Your task to perform on an android device: What's on my calendar tomorrow? Image 0: 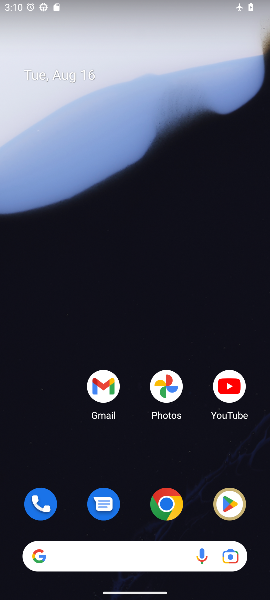
Step 0: drag from (141, 489) to (101, 124)
Your task to perform on an android device: What's on my calendar tomorrow? Image 1: 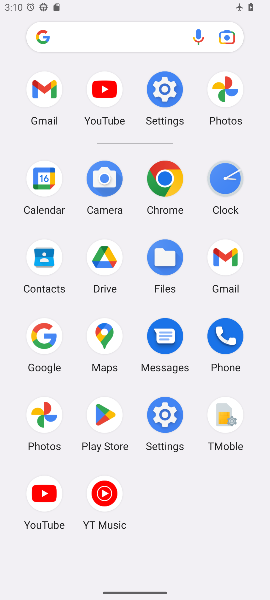
Step 1: click (41, 175)
Your task to perform on an android device: What's on my calendar tomorrow? Image 2: 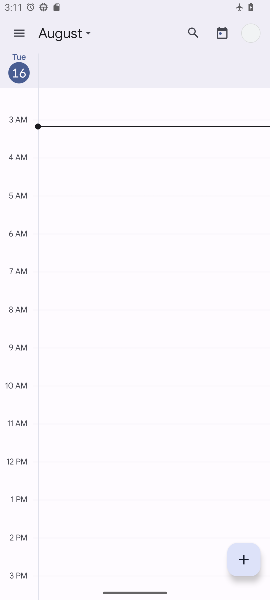
Step 2: click (19, 31)
Your task to perform on an android device: What's on my calendar tomorrow? Image 3: 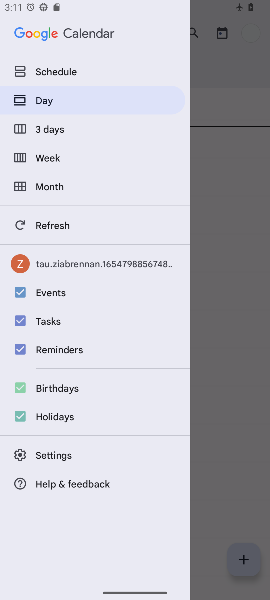
Step 3: click (69, 103)
Your task to perform on an android device: What's on my calendar tomorrow? Image 4: 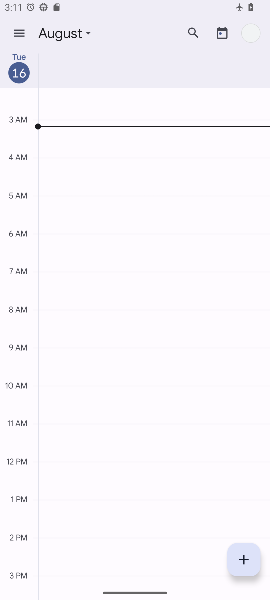
Step 4: click (86, 30)
Your task to perform on an android device: What's on my calendar tomorrow? Image 5: 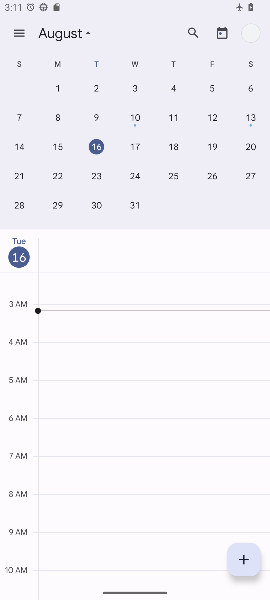
Step 5: click (132, 144)
Your task to perform on an android device: What's on my calendar tomorrow? Image 6: 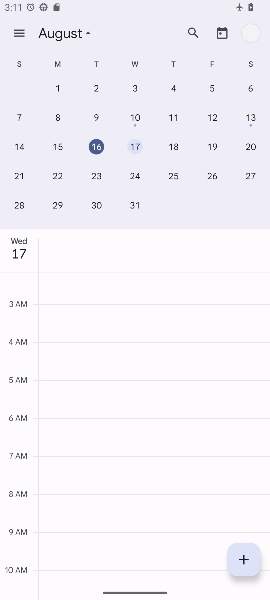
Step 6: task complete